Your task to perform on an android device: turn on data saver in the chrome app Image 0: 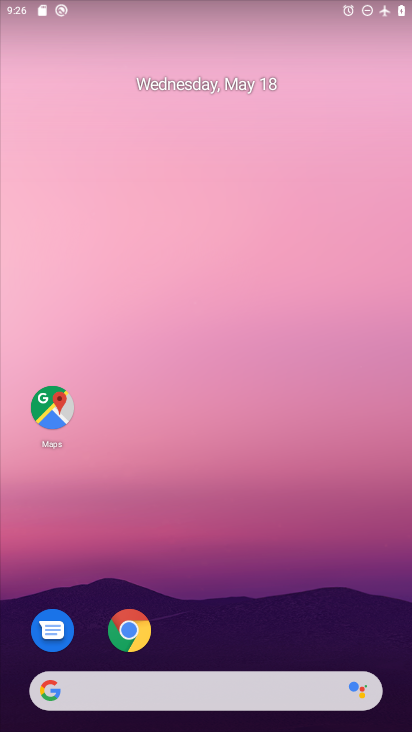
Step 0: drag from (199, 658) to (316, 0)
Your task to perform on an android device: turn on data saver in the chrome app Image 1: 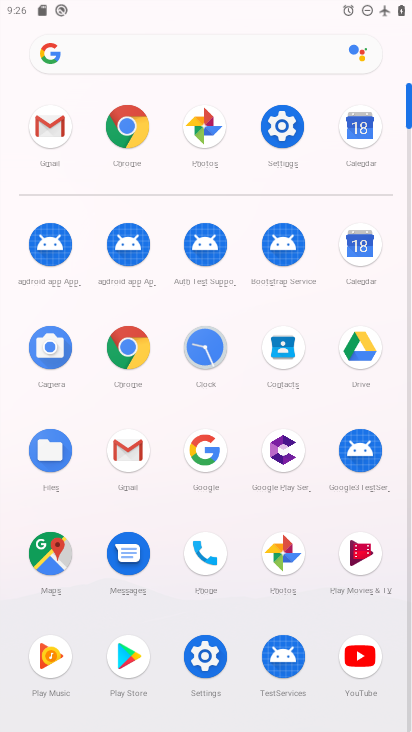
Step 1: click (131, 360)
Your task to perform on an android device: turn on data saver in the chrome app Image 2: 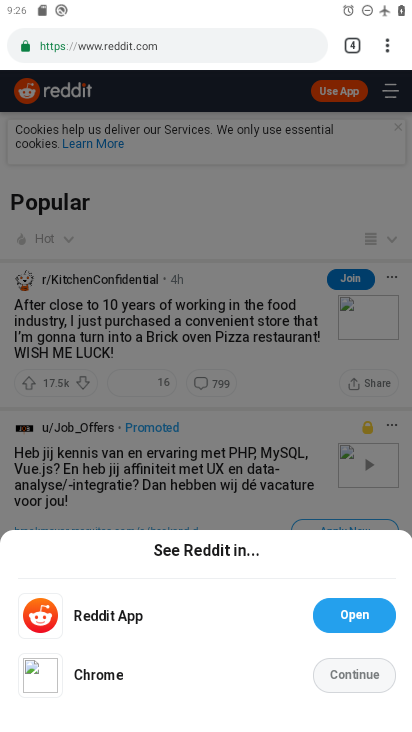
Step 2: click (390, 43)
Your task to perform on an android device: turn on data saver in the chrome app Image 3: 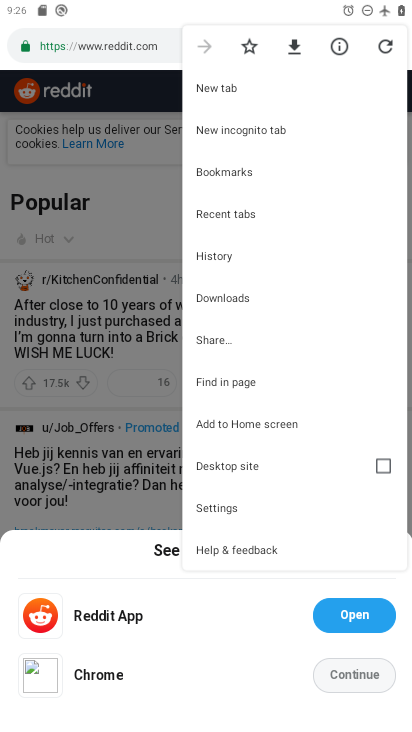
Step 3: click (222, 518)
Your task to perform on an android device: turn on data saver in the chrome app Image 4: 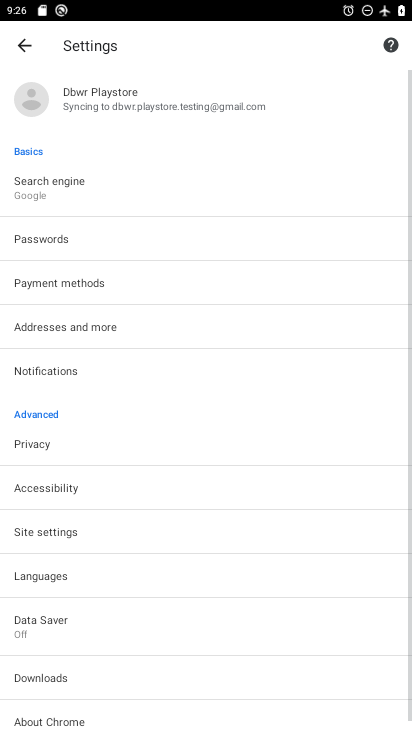
Step 4: click (67, 634)
Your task to perform on an android device: turn on data saver in the chrome app Image 5: 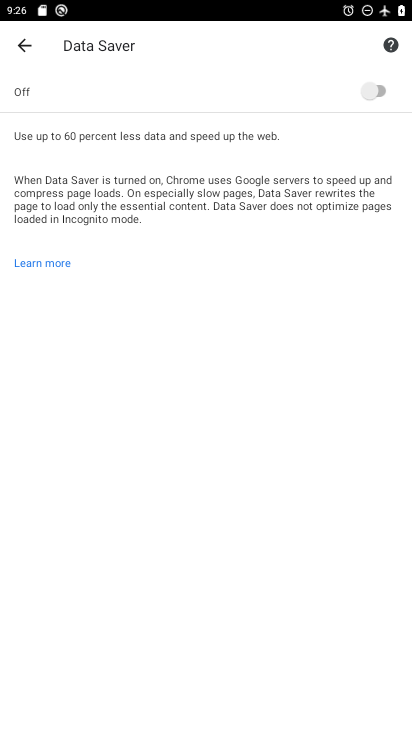
Step 5: click (380, 95)
Your task to perform on an android device: turn on data saver in the chrome app Image 6: 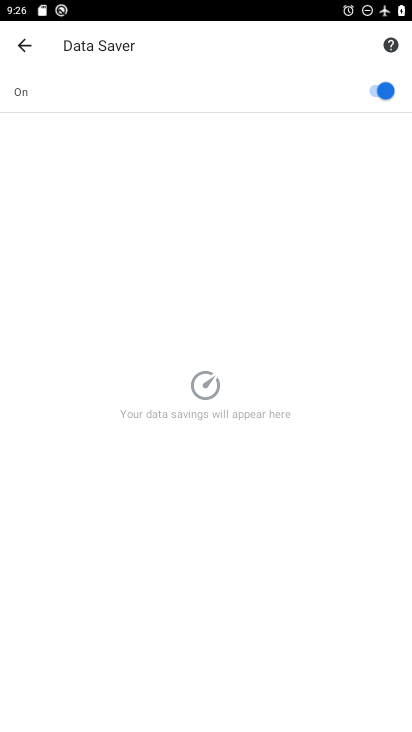
Step 6: task complete